Your task to perform on an android device: Go to Reddit.com Image 0: 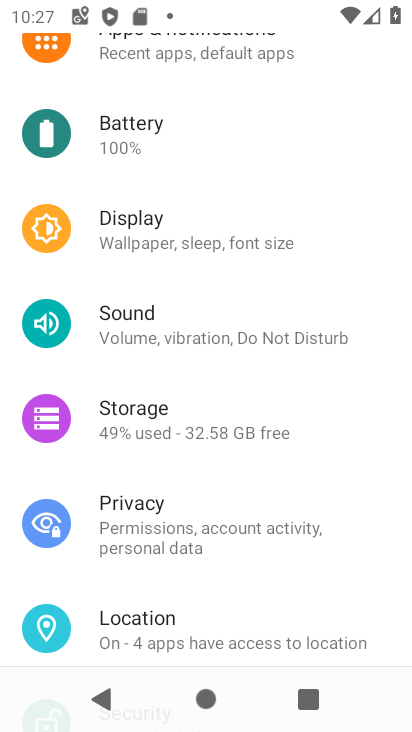
Step 0: press back button
Your task to perform on an android device: Go to Reddit.com Image 1: 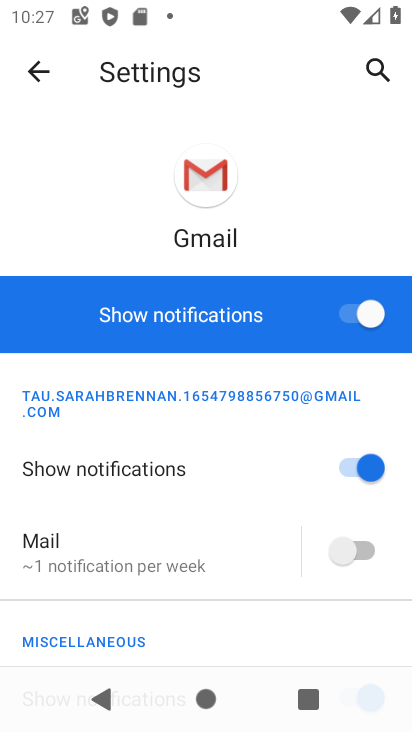
Step 1: press back button
Your task to perform on an android device: Go to Reddit.com Image 2: 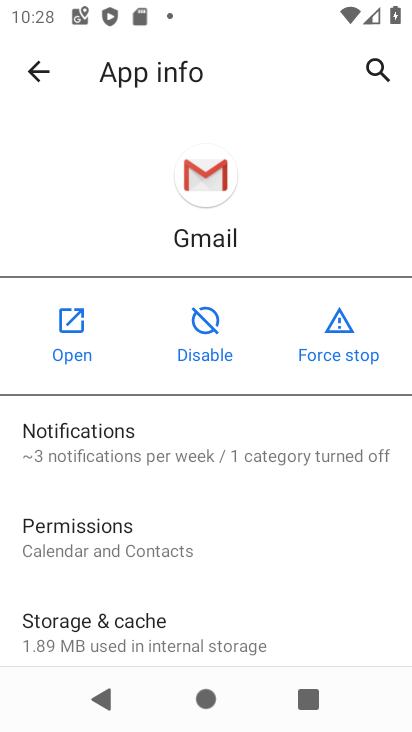
Step 2: press back button
Your task to perform on an android device: Go to Reddit.com Image 3: 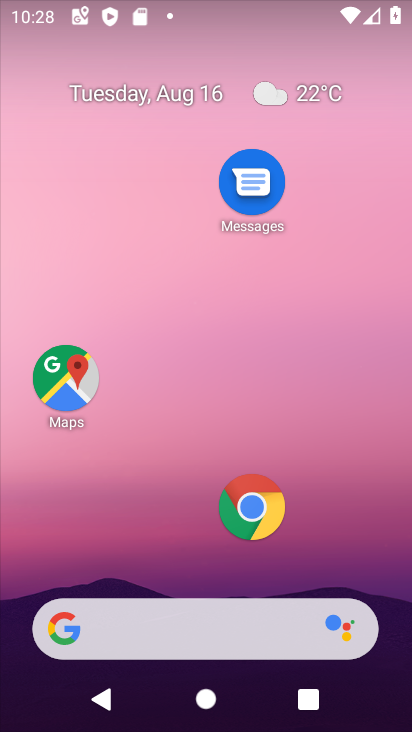
Step 3: click (257, 508)
Your task to perform on an android device: Go to Reddit.com Image 4: 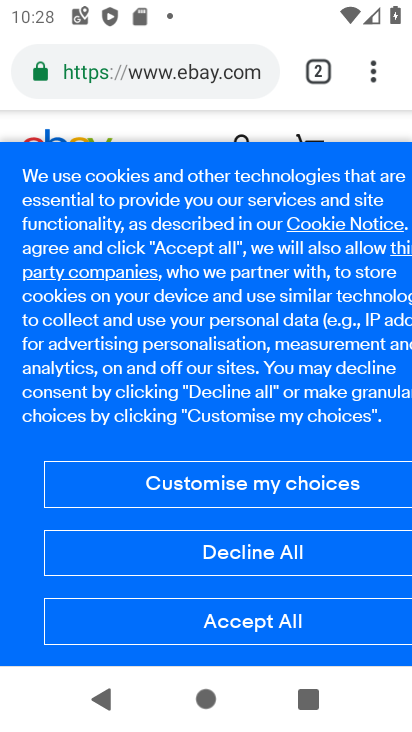
Step 4: click (319, 81)
Your task to perform on an android device: Go to Reddit.com Image 5: 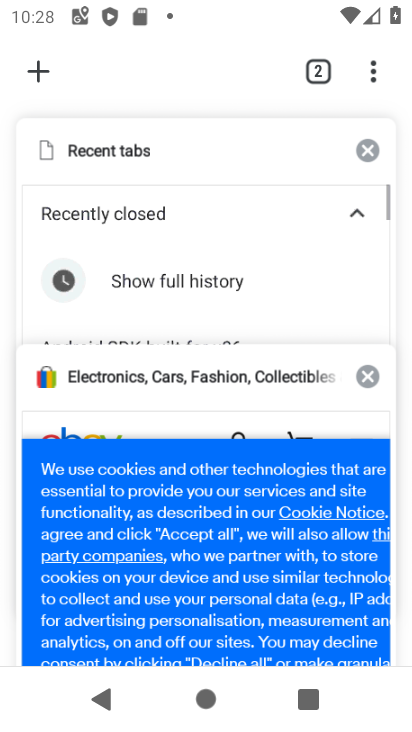
Step 5: click (41, 62)
Your task to perform on an android device: Go to Reddit.com Image 6: 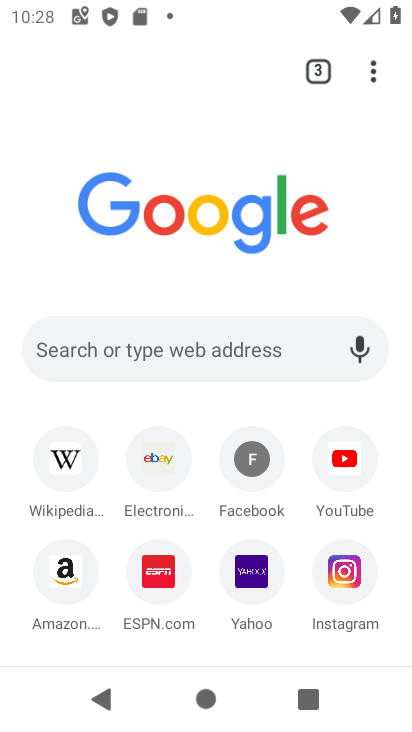
Step 6: click (143, 348)
Your task to perform on an android device: Go to Reddit.com Image 7: 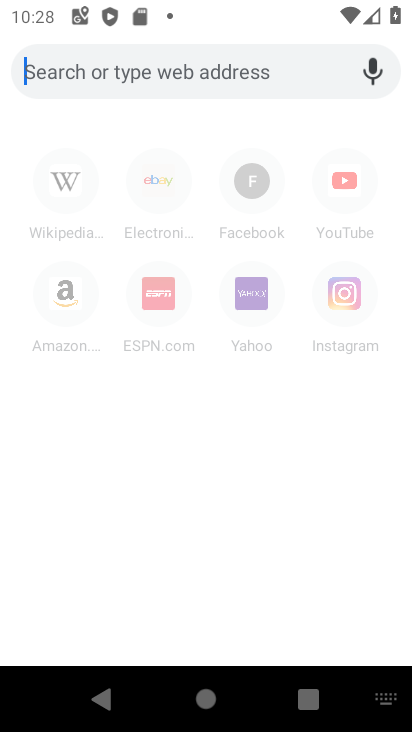
Step 7: type "reddit.com"
Your task to perform on an android device: Go to Reddit.com Image 8: 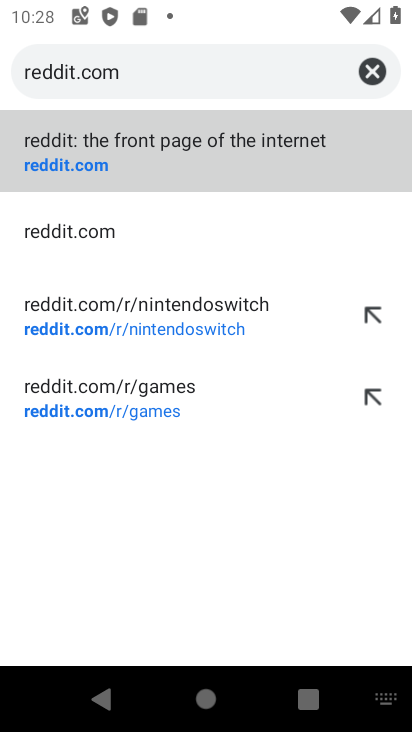
Step 8: click (171, 164)
Your task to perform on an android device: Go to Reddit.com Image 9: 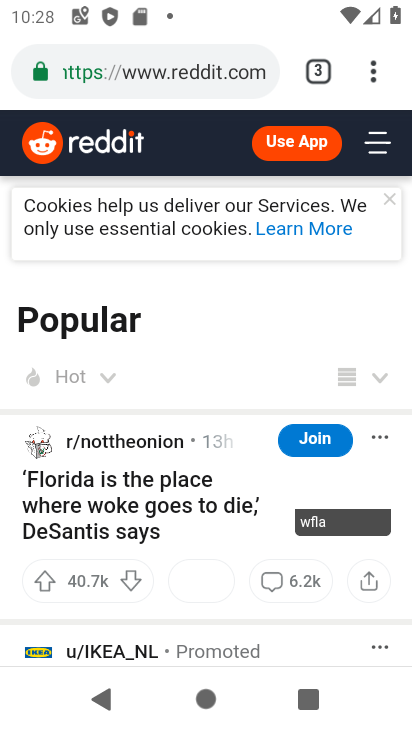
Step 9: task complete